Your task to perform on an android device: Open calendar and show me the second week of next month Image 0: 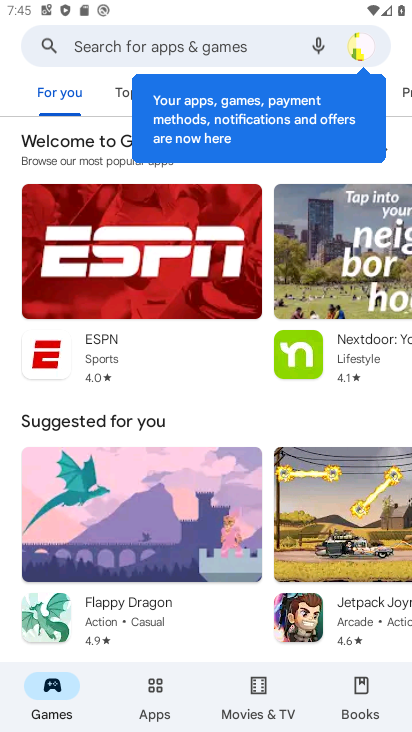
Step 0: press home button
Your task to perform on an android device: Open calendar and show me the second week of next month Image 1: 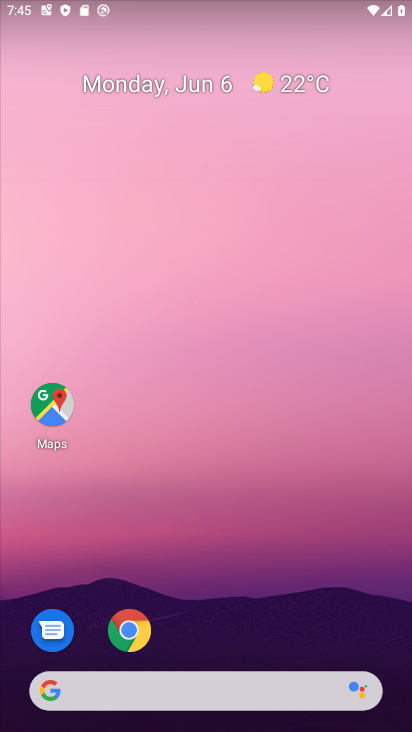
Step 1: drag from (137, 729) to (126, 77)
Your task to perform on an android device: Open calendar and show me the second week of next month Image 2: 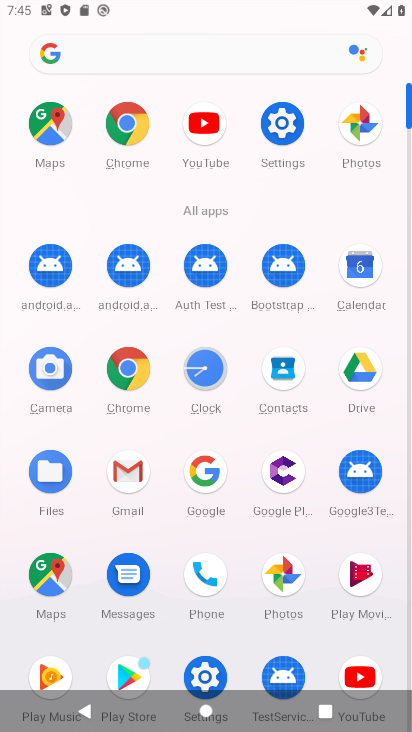
Step 2: click (355, 284)
Your task to perform on an android device: Open calendar and show me the second week of next month Image 3: 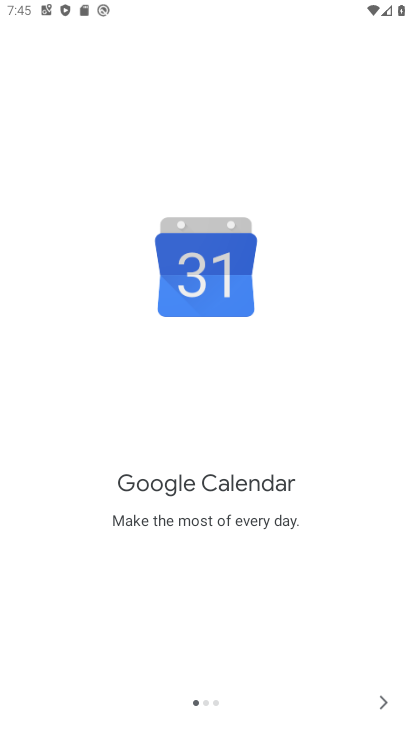
Step 3: click (382, 701)
Your task to perform on an android device: Open calendar and show me the second week of next month Image 4: 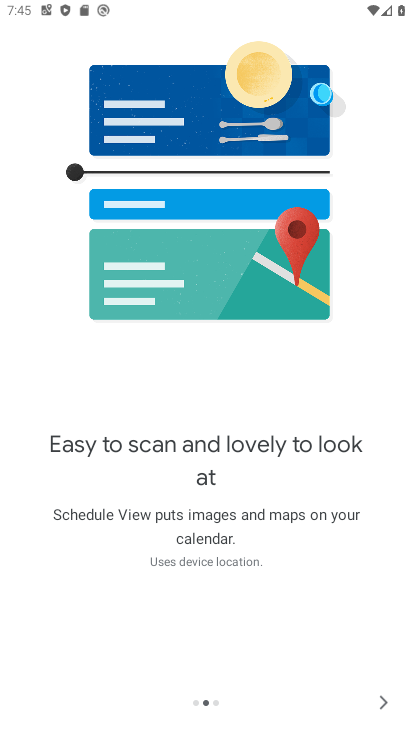
Step 4: click (382, 698)
Your task to perform on an android device: Open calendar and show me the second week of next month Image 5: 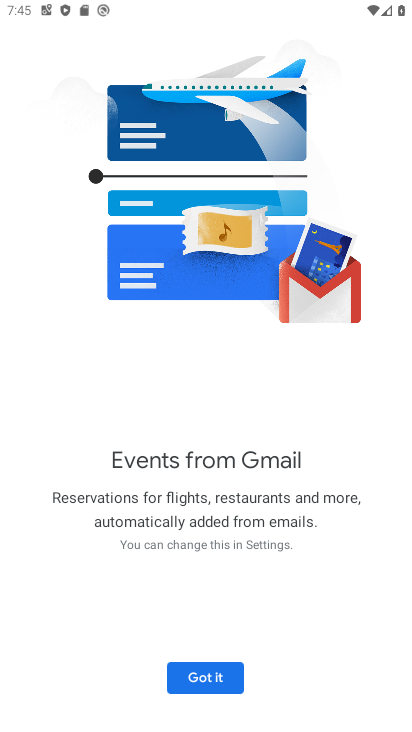
Step 5: click (382, 698)
Your task to perform on an android device: Open calendar and show me the second week of next month Image 6: 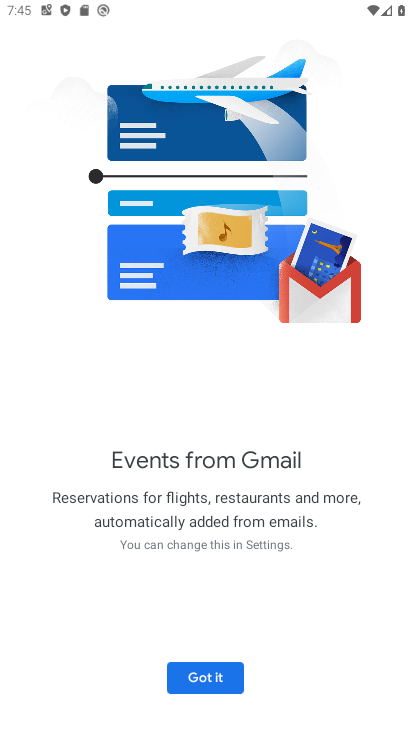
Step 6: click (205, 686)
Your task to perform on an android device: Open calendar and show me the second week of next month Image 7: 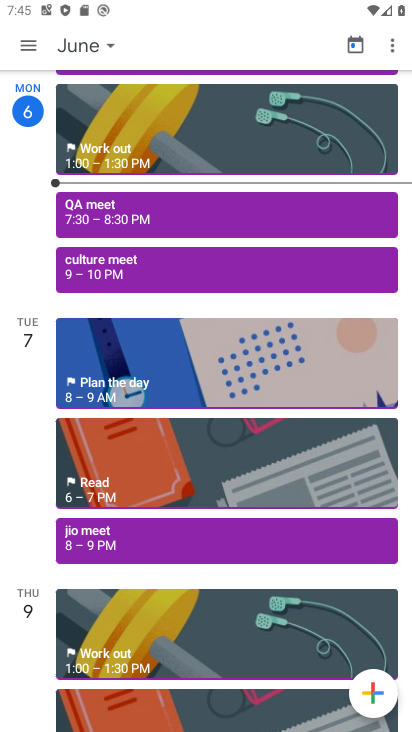
Step 7: click (115, 51)
Your task to perform on an android device: Open calendar and show me the second week of next month Image 8: 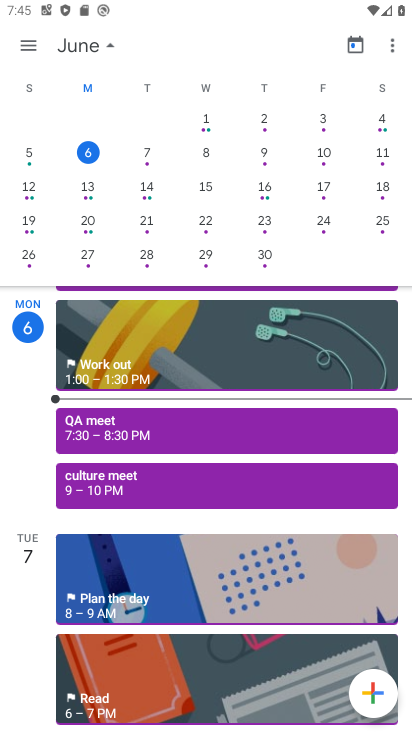
Step 8: drag from (369, 258) to (4, 263)
Your task to perform on an android device: Open calendar and show me the second week of next month Image 9: 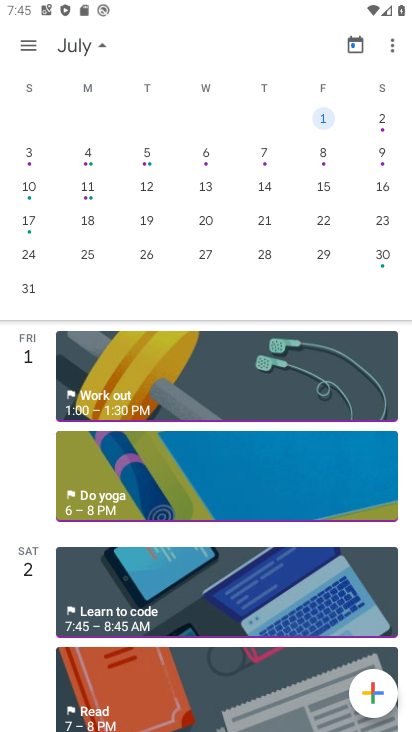
Step 9: click (82, 37)
Your task to perform on an android device: Open calendar and show me the second week of next month Image 10: 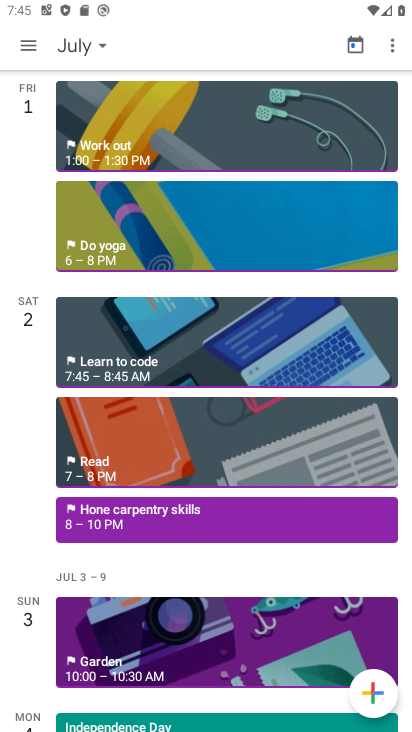
Step 10: click (29, 46)
Your task to perform on an android device: Open calendar and show me the second week of next month Image 11: 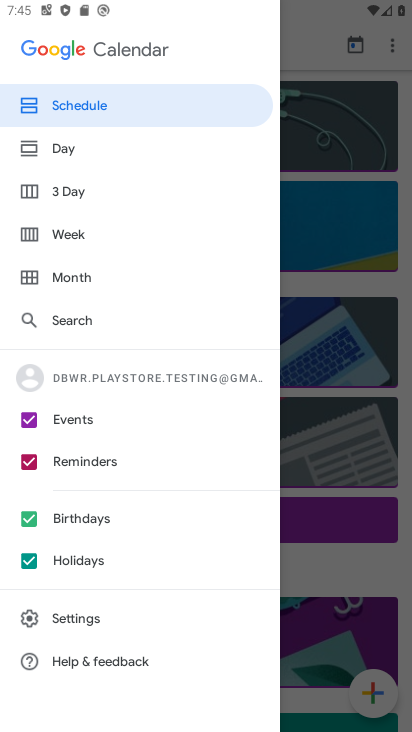
Step 11: click (43, 241)
Your task to perform on an android device: Open calendar and show me the second week of next month Image 12: 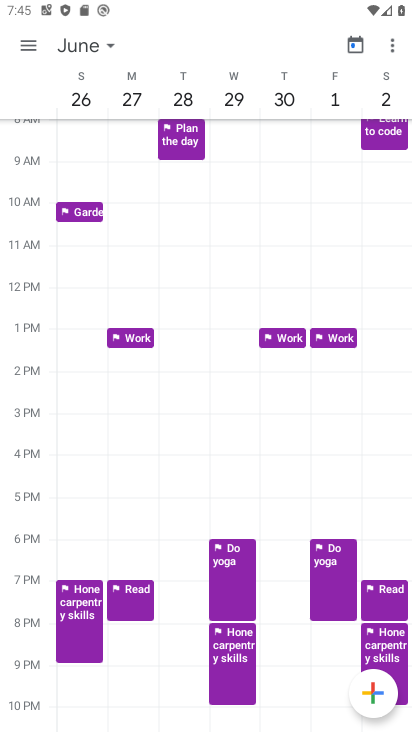
Step 12: task complete